Your task to perform on an android device: allow cookies in the chrome app Image 0: 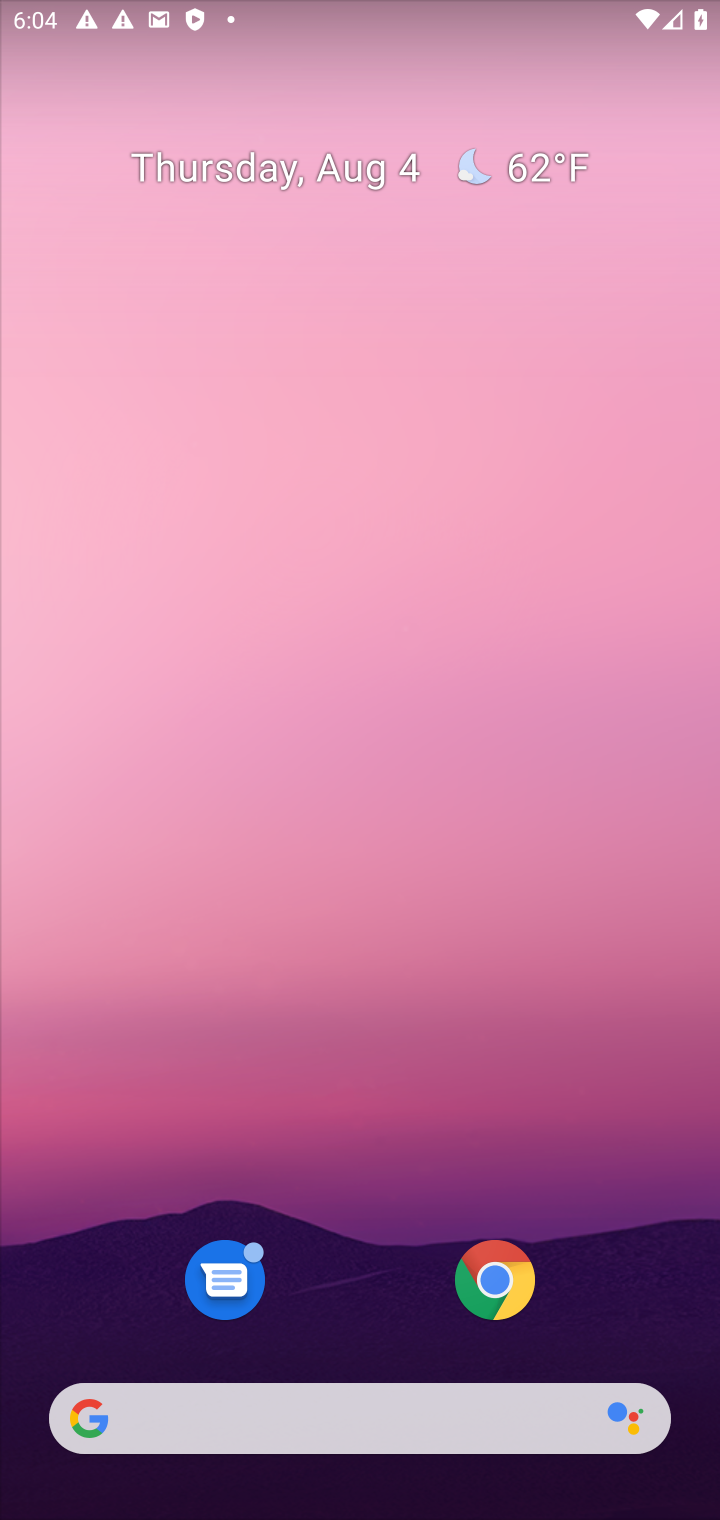
Step 0: click (485, 1299)
Your task to perform on an android device: allow cookies in the chrome app Image 1: 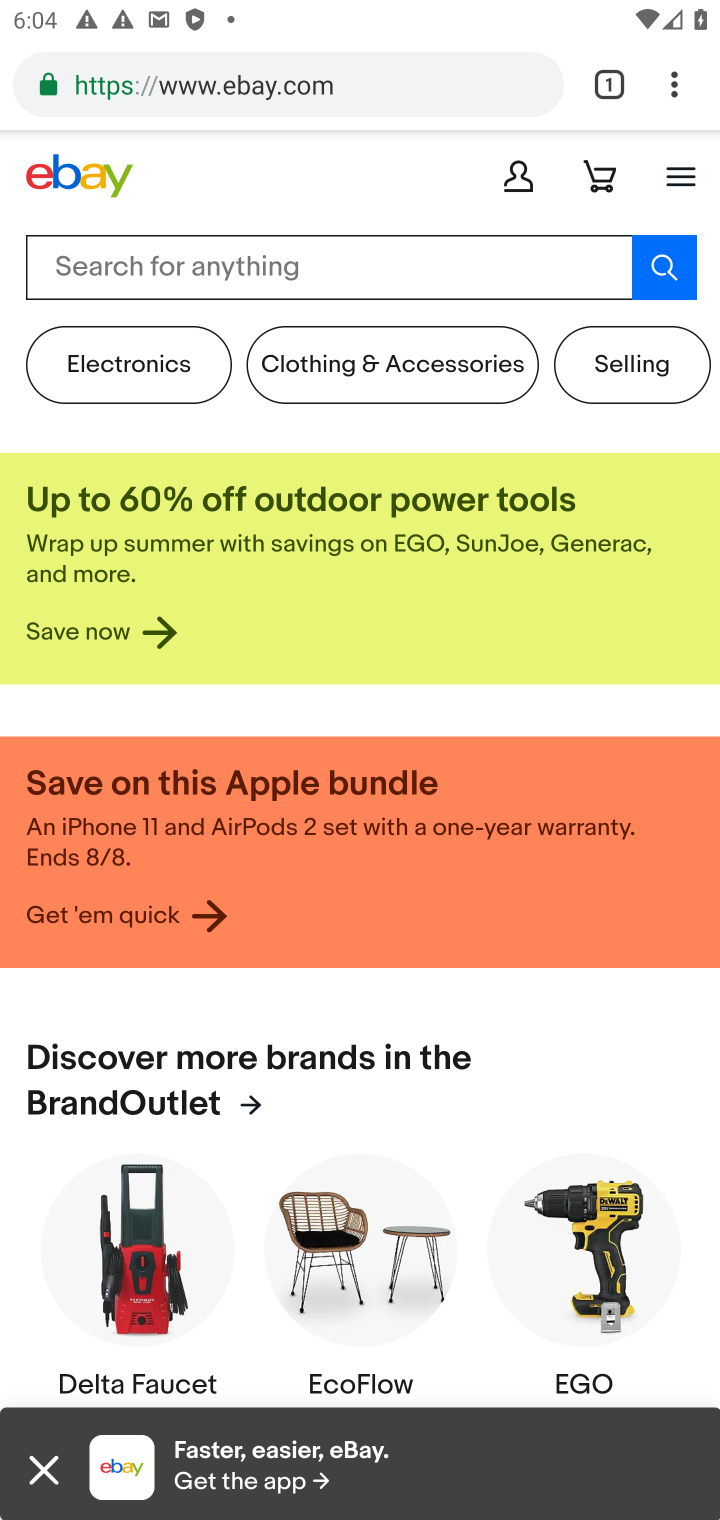
Step 1: click (675, 93)
Your task to perform on an android device: allow cookies in the chrome app Image 2: 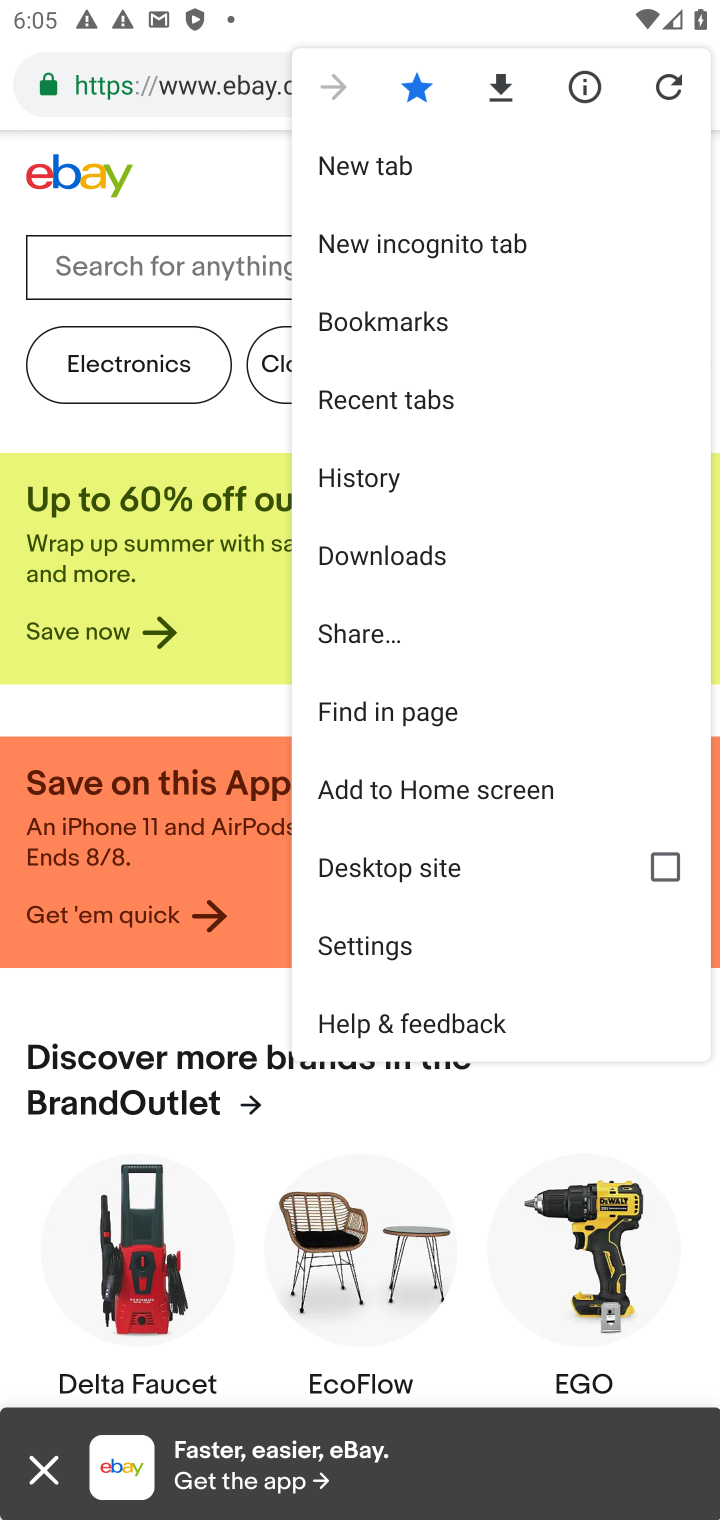
Step 2: click (407, 953)
Your task to perform on an android device: allow cookies in the chrome app Image 3: 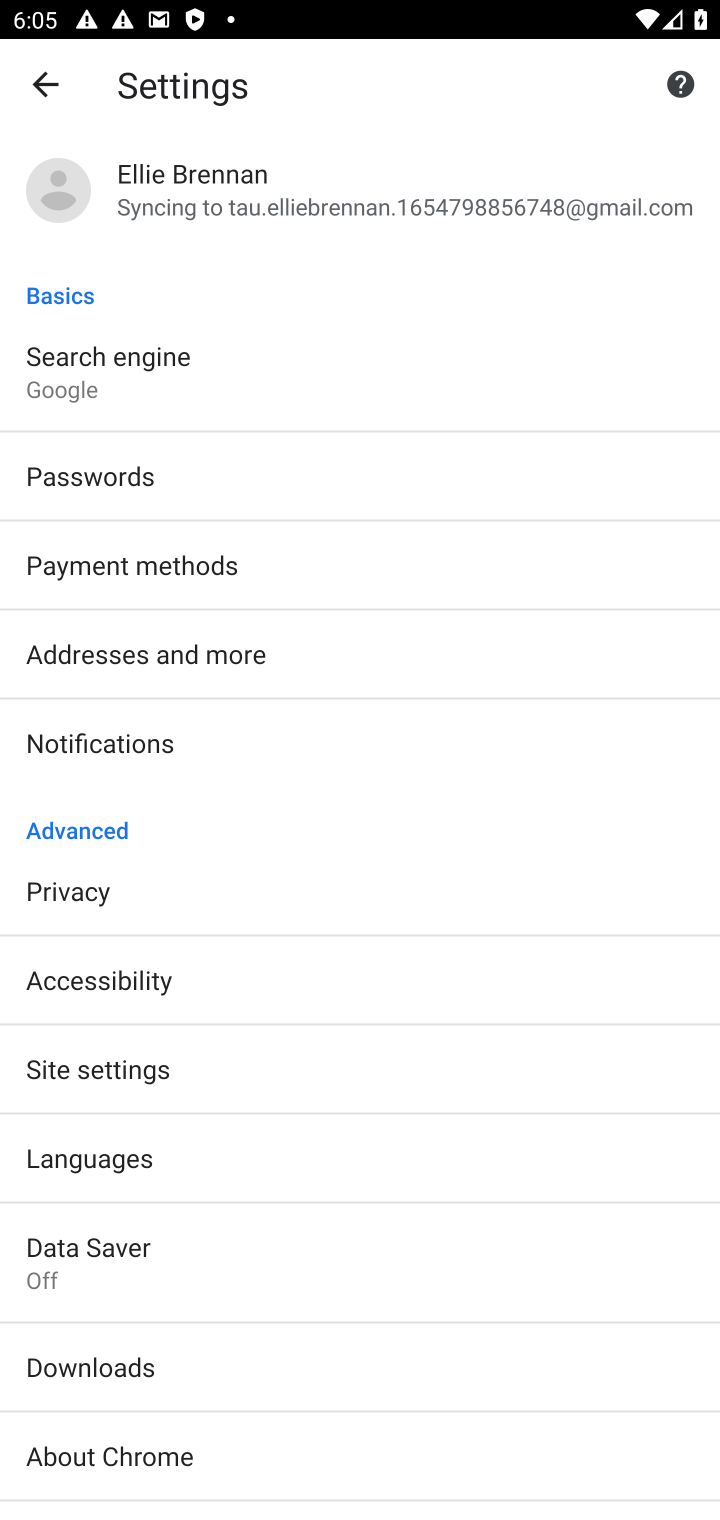
Step 3: click (140, 1077)
Your task to perform on an android device: allow cookies in the chrome app Image 4: 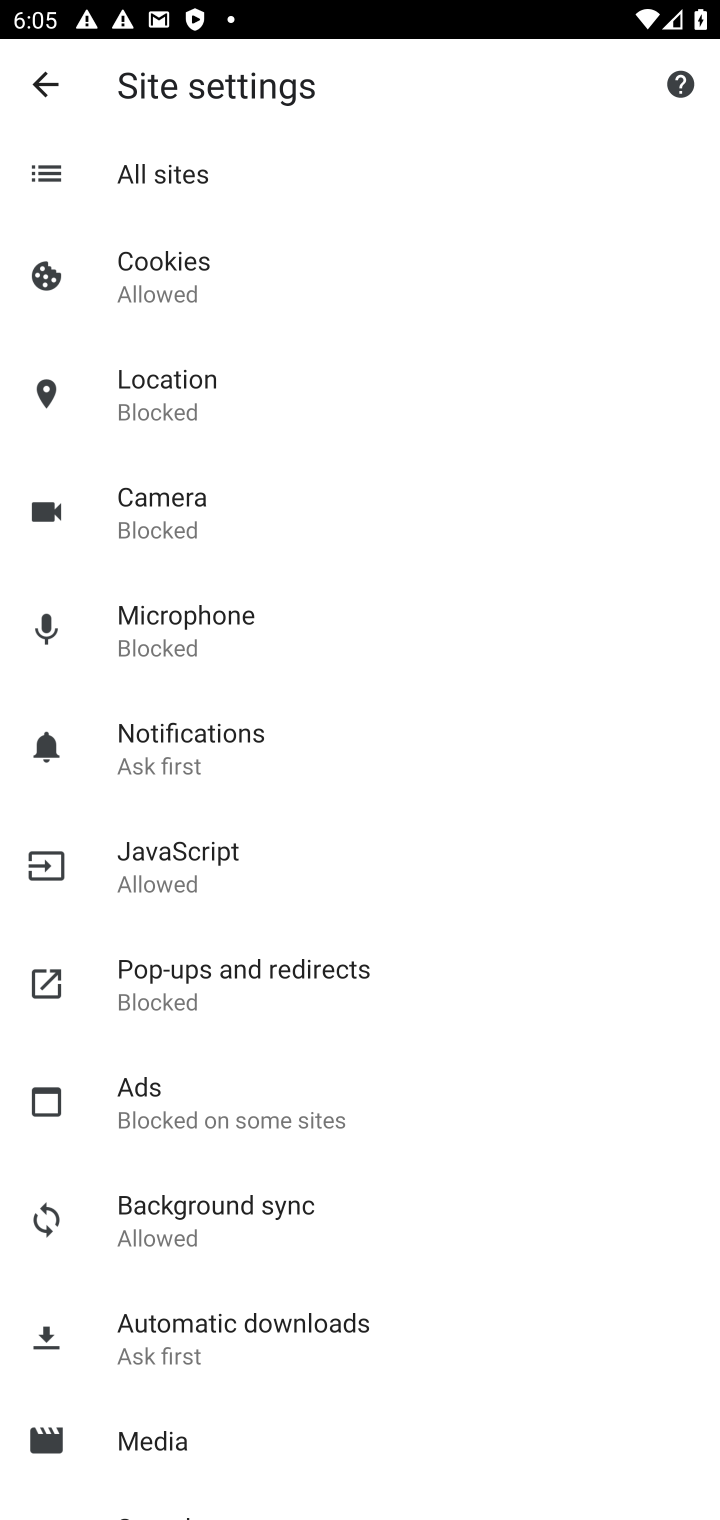
Step 4: click (176, 320)
Your task to perform on an android device: allow cookies in the chrome app Image 5: 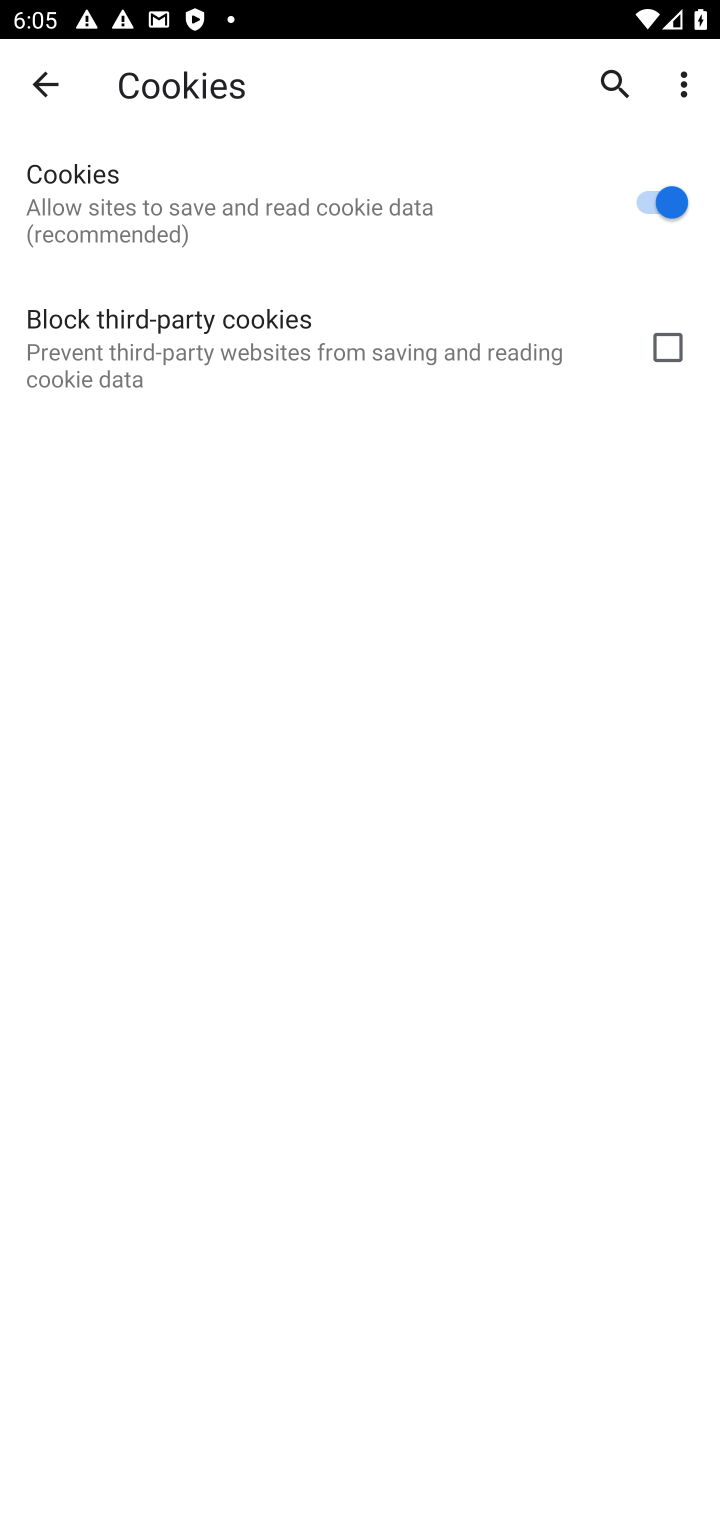
Step 5: task complete